Your task to perform on an android device: open app "Roku - Official Remote Control" (install if not already installed) and enter user name: "autumnal@gmail.com" and password: "stuffing" Image 0: 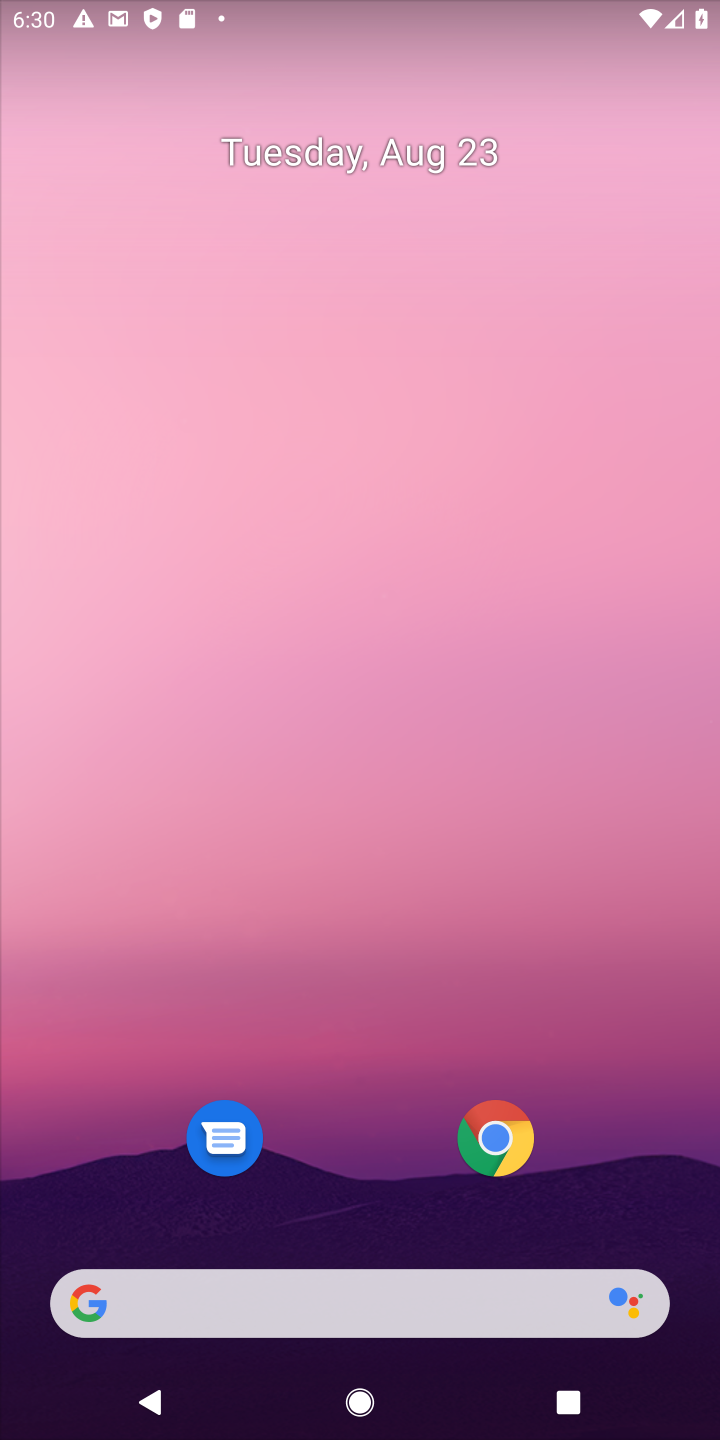
Step 0: drag from (392, 1197) to (395, 31)
Your task to perform on an android device: open app "Roku - Official Remote Control" (install if not already installed) and enter user name: "autumnal@gmail.com" and password: "stuffing" Image 1: 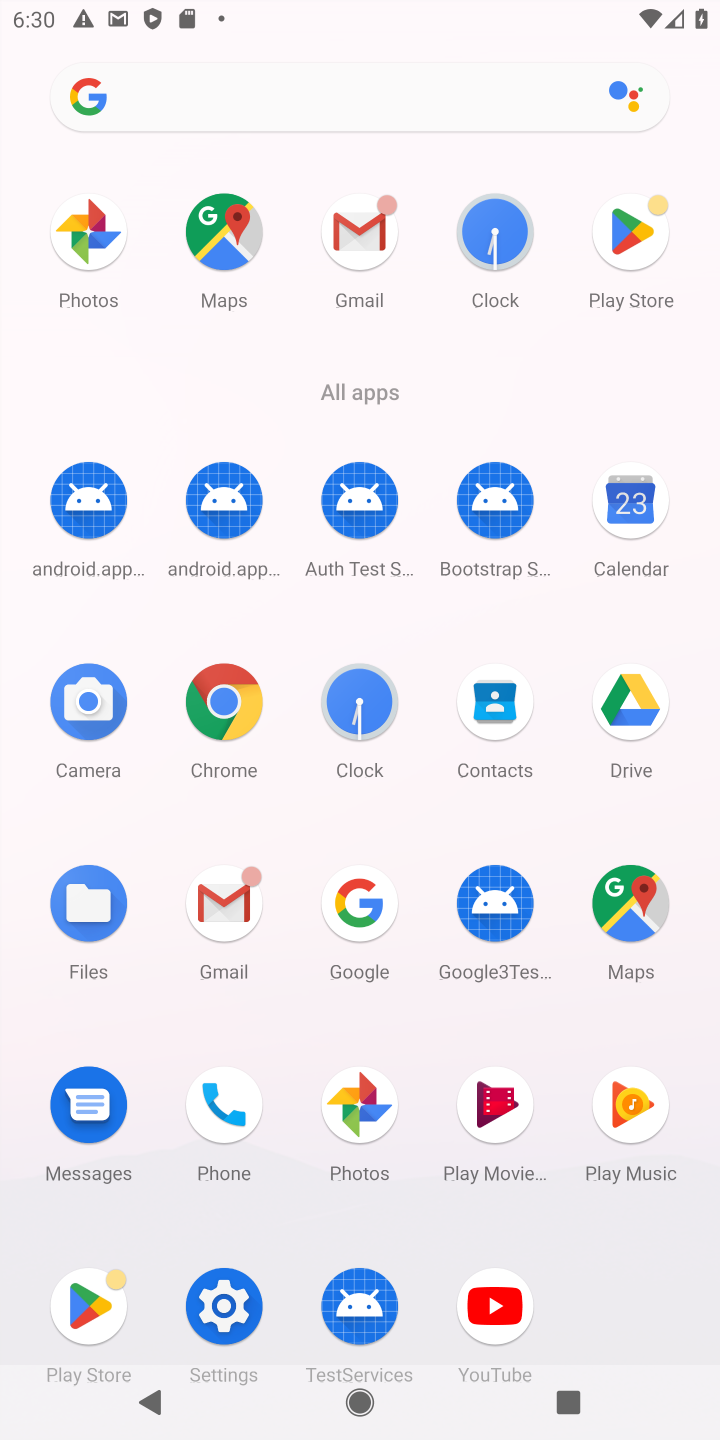
Step 1: click (617, 219)
Your task to perform on an android device: open app "Roku - Official Remote Control" (install if not already installed) and enter user name: "autumnal@gmail.com" and password: "stuffing" Image 2: 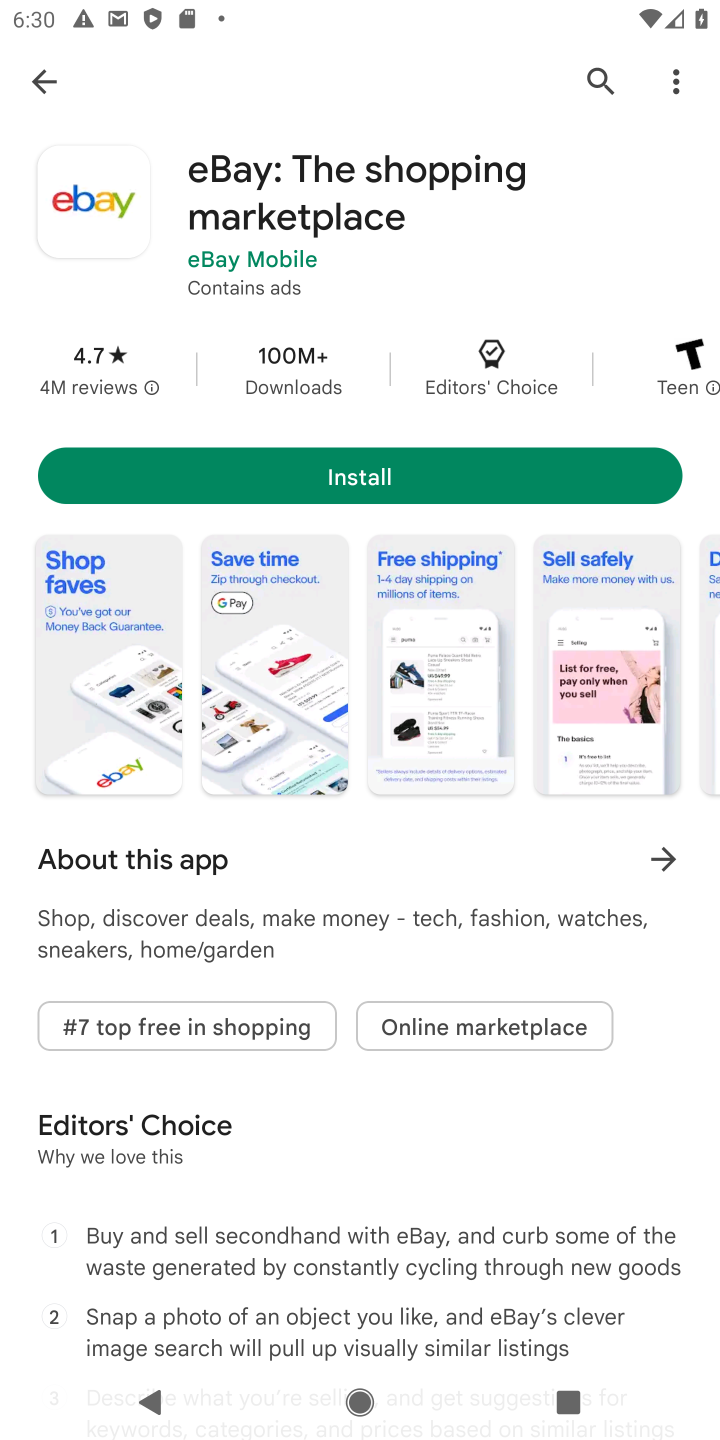
Step 2: click (47, 82)
Your task to perform on an android device: open app "Roku - Official Remote Control" (install if not already installed) and enter user name: "autumnal@gmail.com" and password: "stuffing" Image 3: 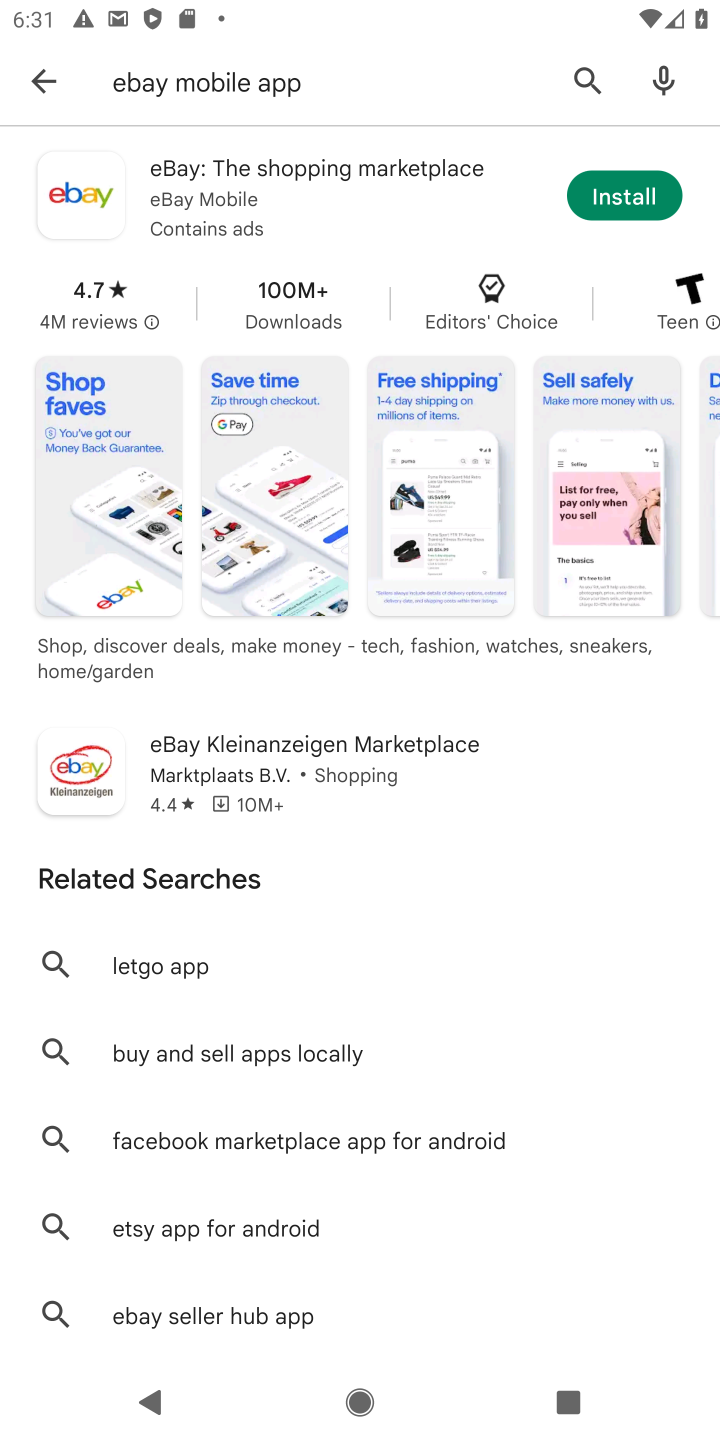
Step 3: click (595, 79)
Your task to perform on an android device: open app "Roku - Official Remote Control" (install if not already installed) and enter user name: "autumnal@gmail.com" and password: "stuffing" Image 4: 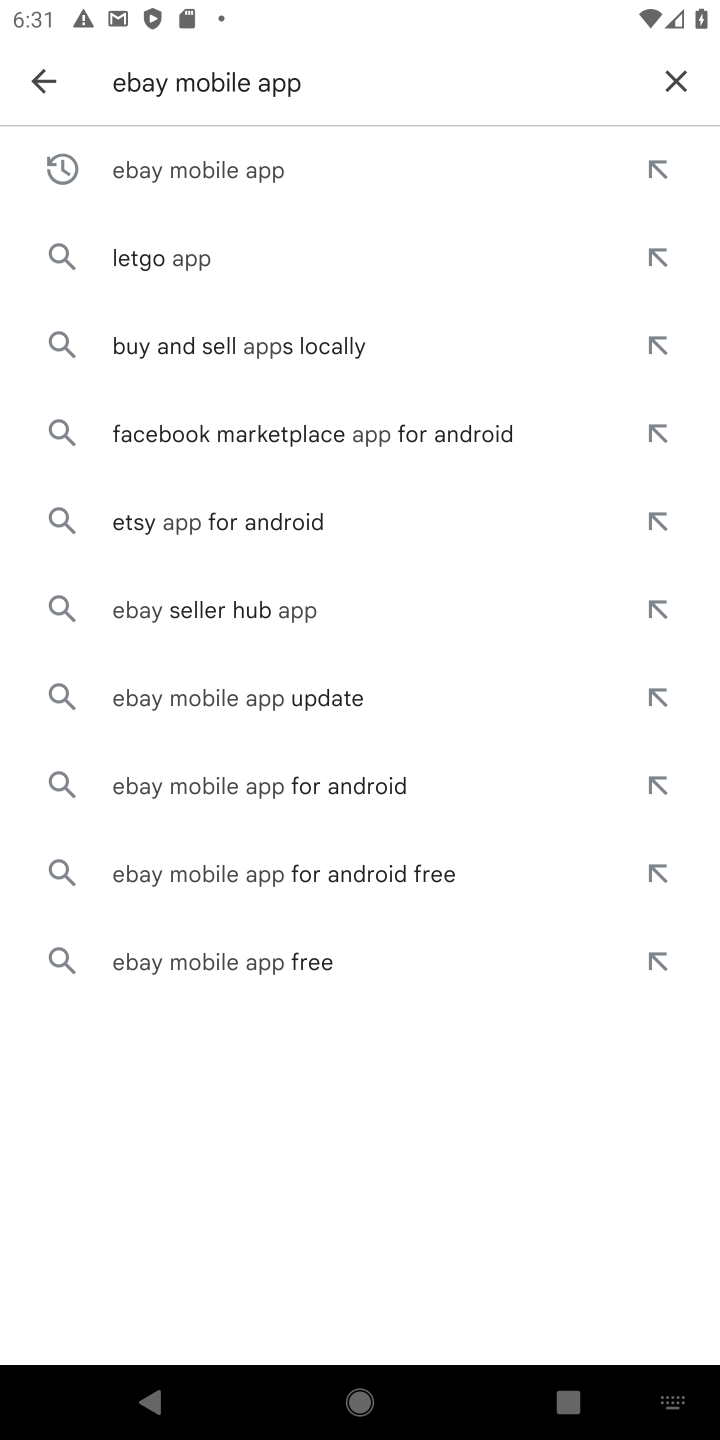
Step 4: click (18, 83)
Your task to perform on an android device: open app "Roku - Official Remote Control" (install if not already installed) and enter user name: "autumnal@gmail.com" and password: "stuffing" Image 5: 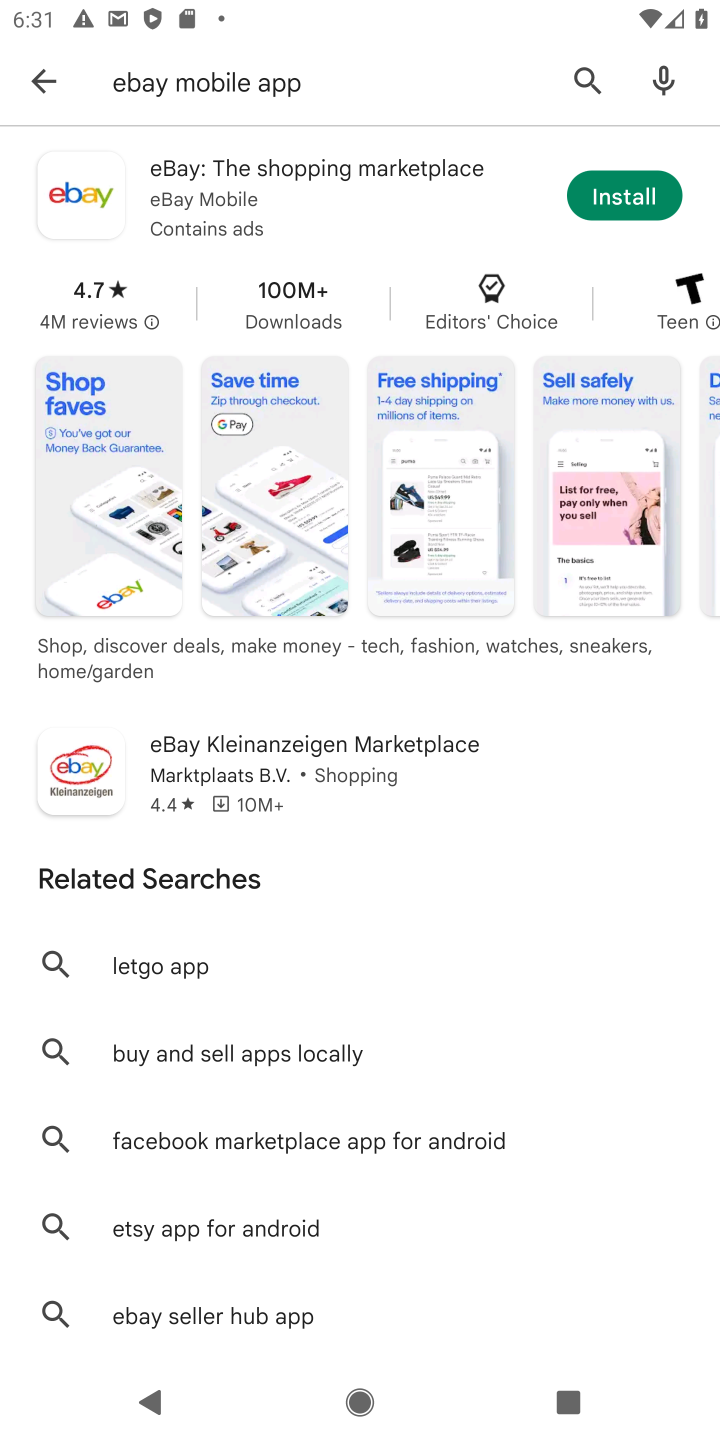
Step 5: click (83, 44)
Your task to perform on an android device: open app "Roku - Official Remote Control" (install if not already installed) and enter user name: "autumnal@gmail.com" and password: "stuffing" Image 6: 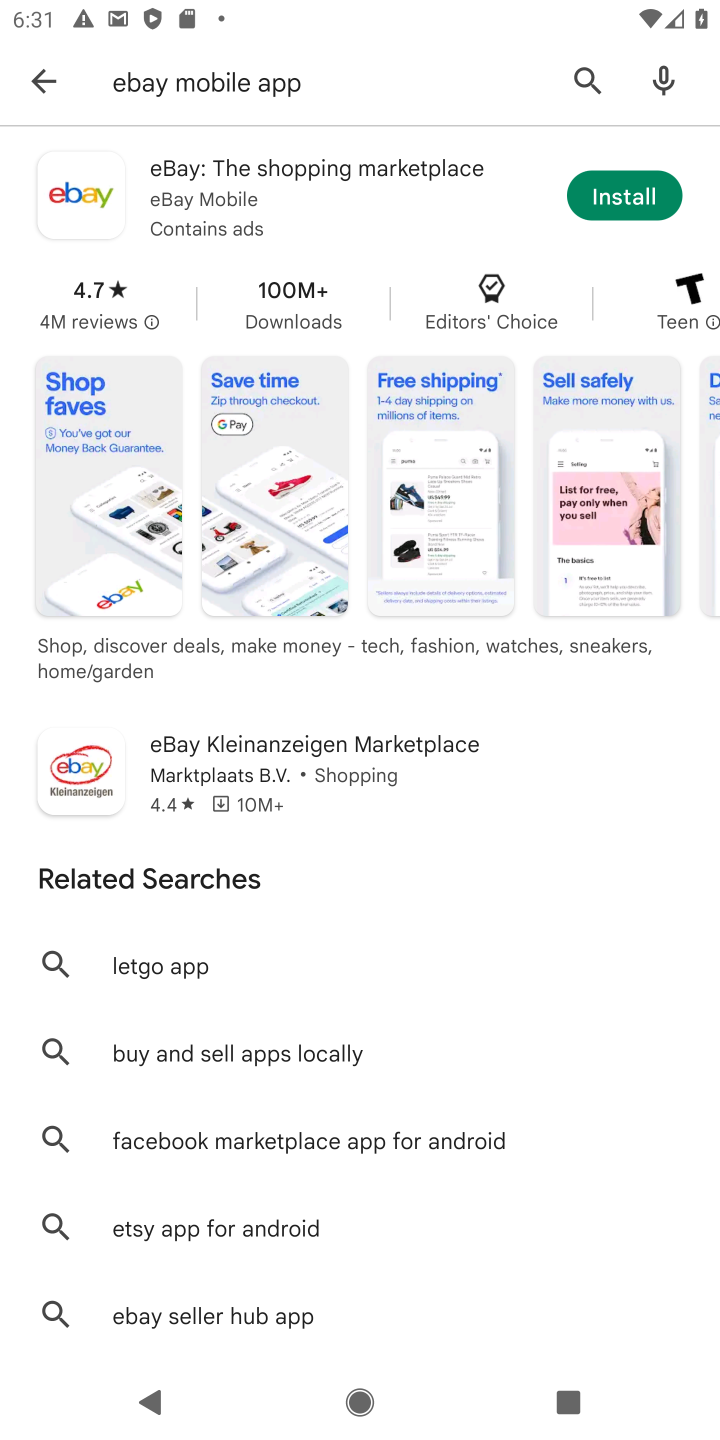
Step 6: click (64, 66)
Your task to perform on an android device: open app "Roku - Official Remote Control" (install if not already installed) and enter user name: "autumnal@gmail.com" and password: "stuffing" Image 7: 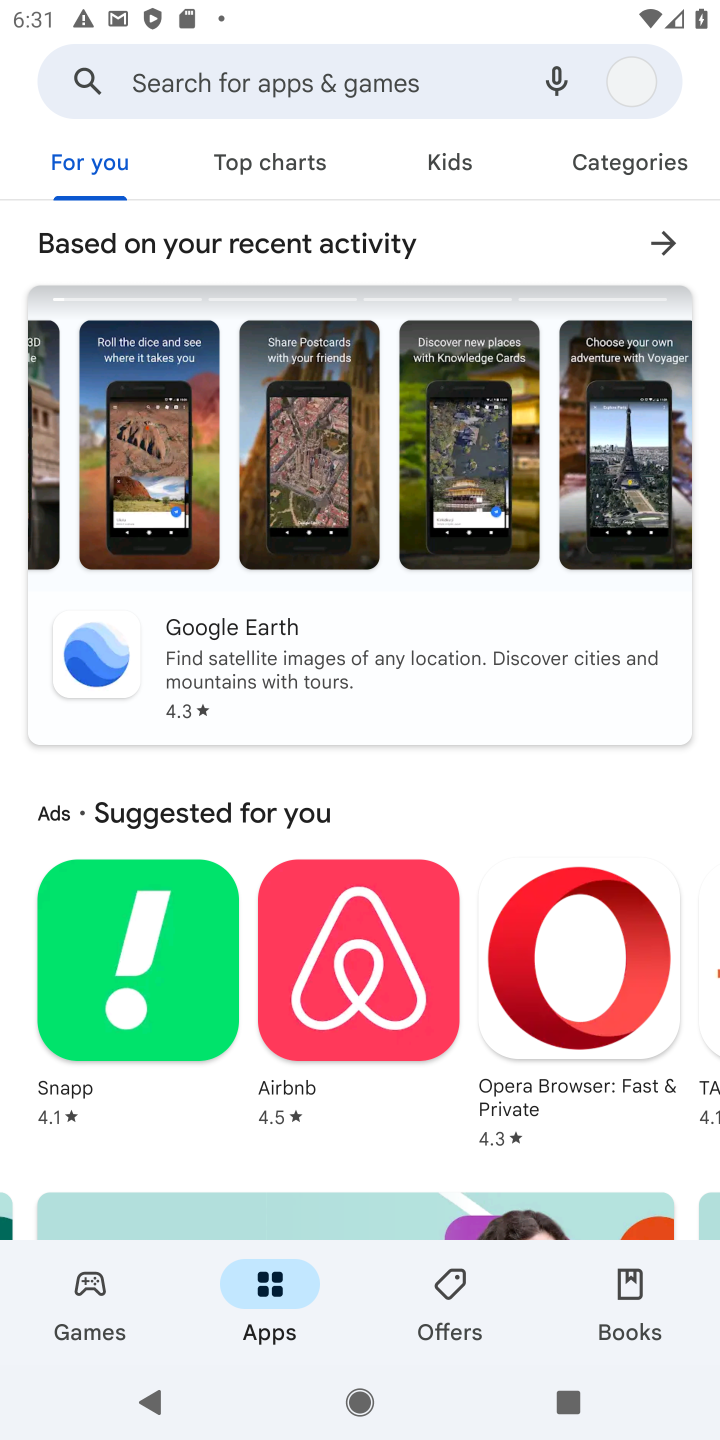
Step 7: click (248, 38)
Your task to perform on an android device: open app "Roku - Official Remote Control" (install if not already installed) and enter user name: "autumnal@gmail.com" and password: "stuffing" Image 8: 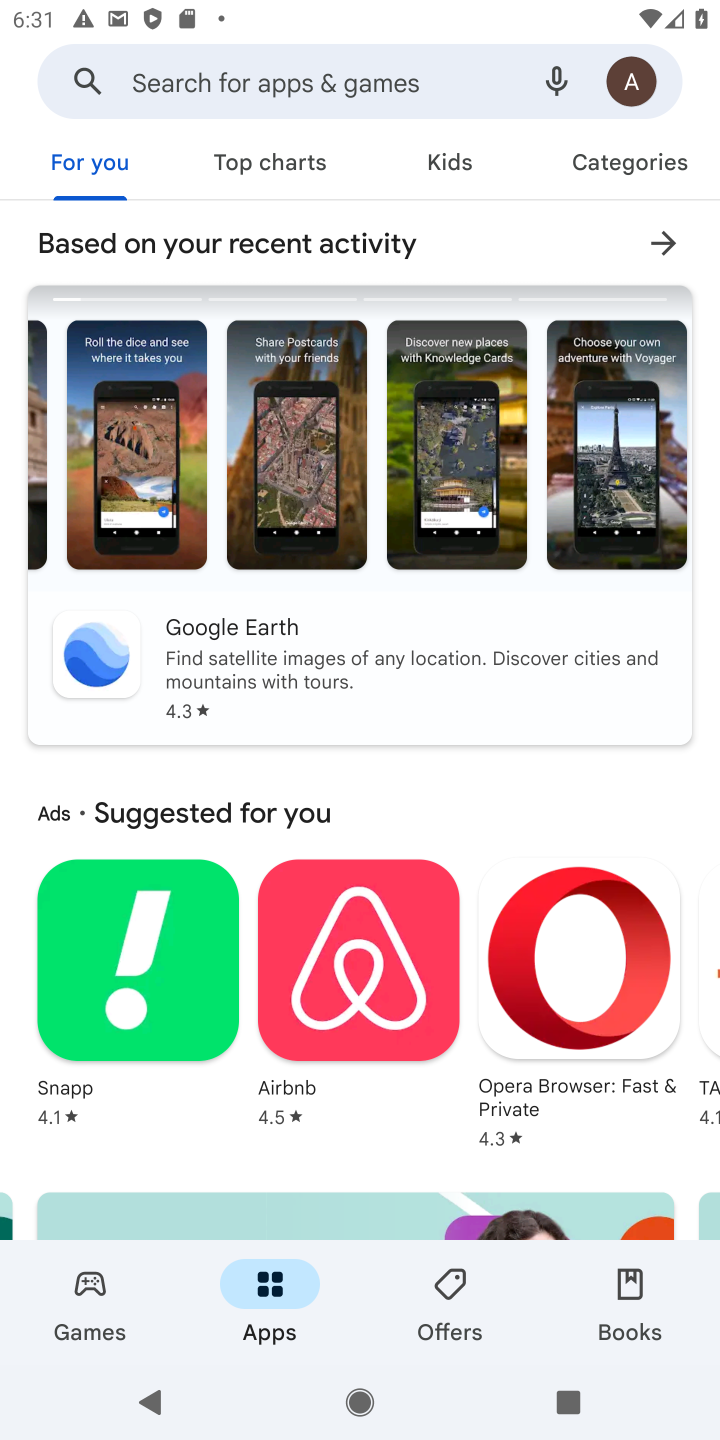
Step 8: click (266, 63)
Your task to perform on an android device: open app "Roku - Official Remote Control" (install if not already installed) and enter user name: "autumnal@gmail.com" and password: "stuffing" Image 9: 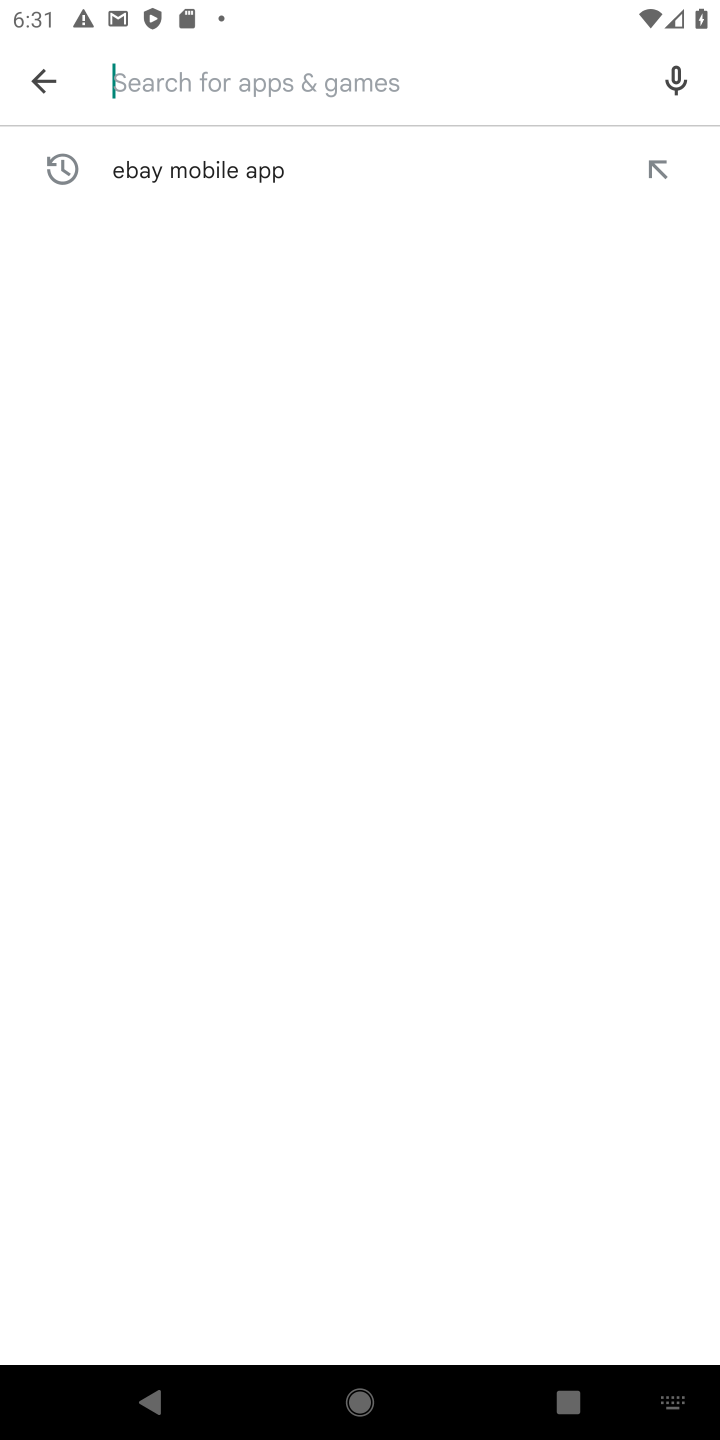
Step 9: type "Roku  "
Your task to perform on an android device: open app "Roku - Official Remote Control" (install if not already installed) and enter user name: "autumnal@gmail.com" and password: "stuffing" Image 10: 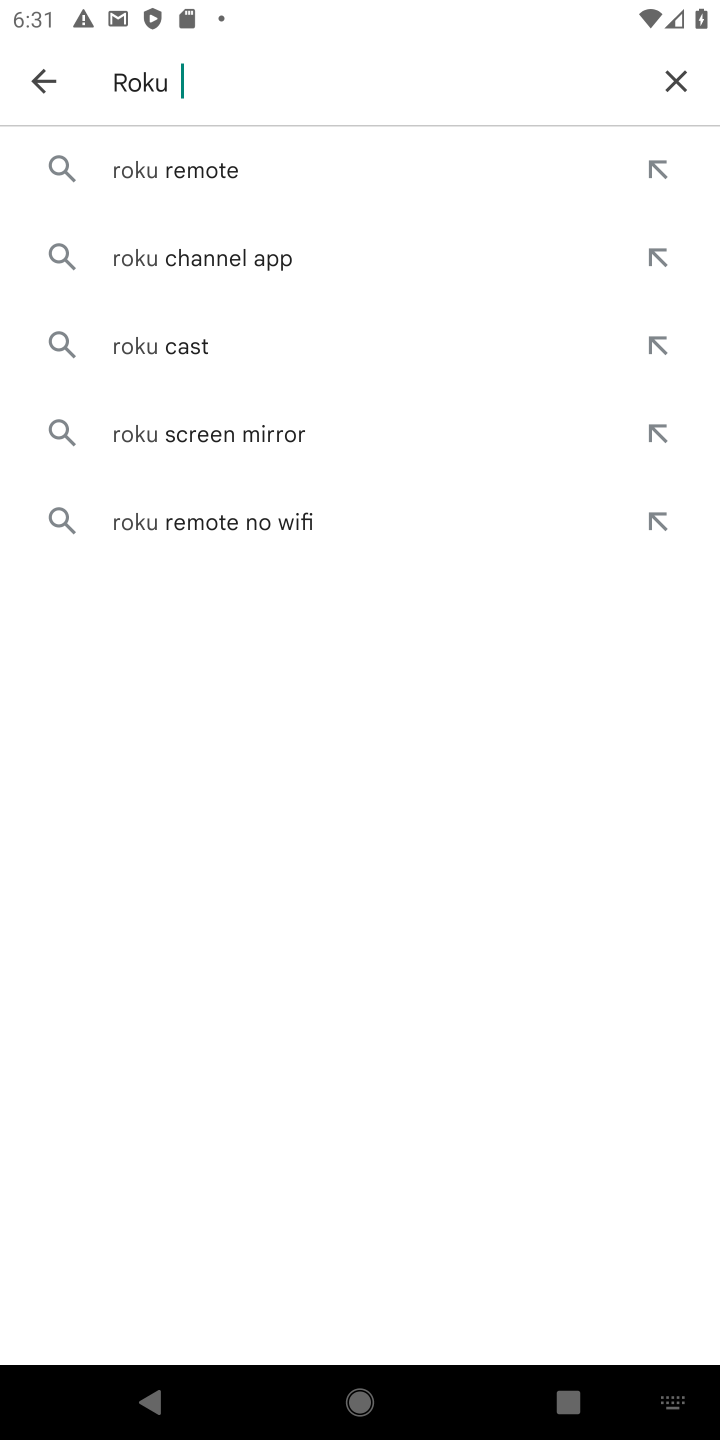
Step 10: click (242, 177)
Your task to perform on an android device: open app "Roku - Official Remote Control" (install if not already installed) and enter user name: "autumnal@gmail.com" and password: "stuffing" Image 11: 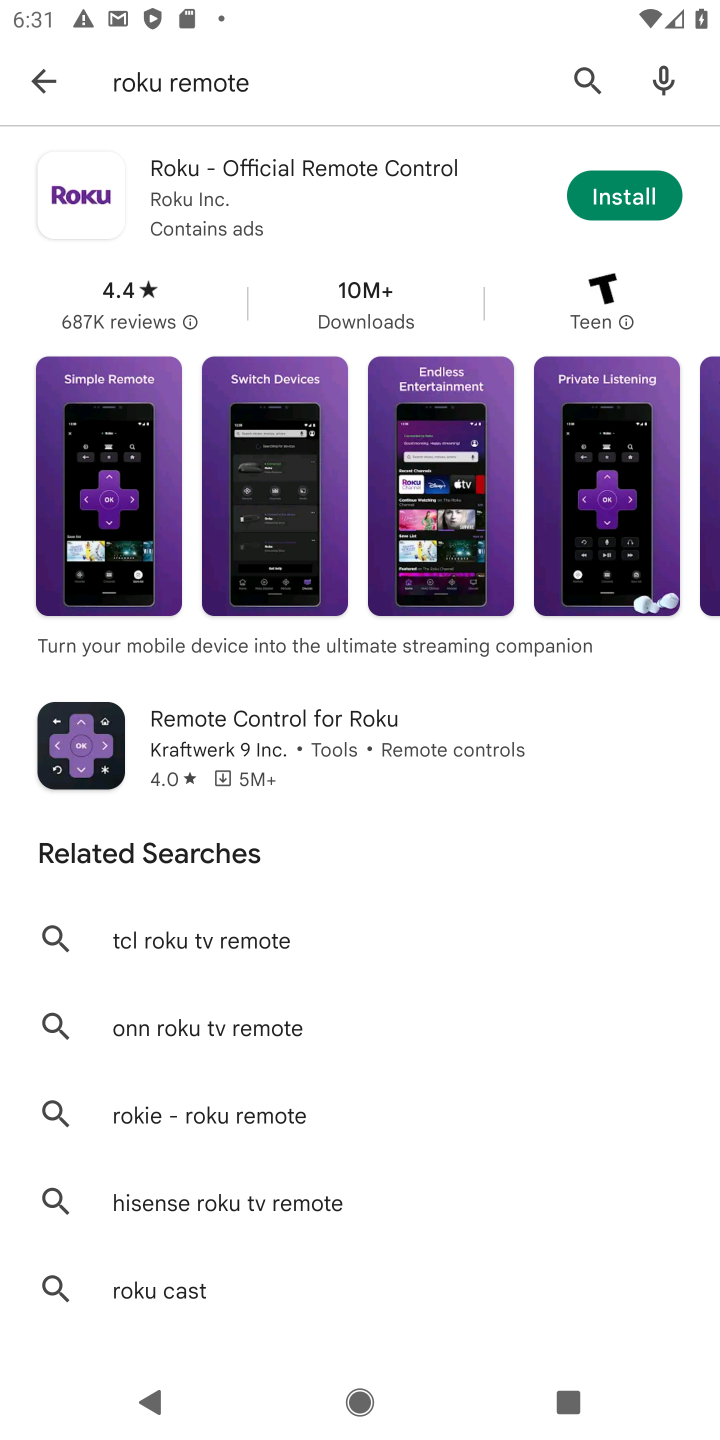
Step 11: click (635, 179)
Your task to perform on an android device: open app "Roku - Official Remote Control" (install if not already installed) and enter user name: "autumnal@gmail.com" and password: "stuffing" Image 12: 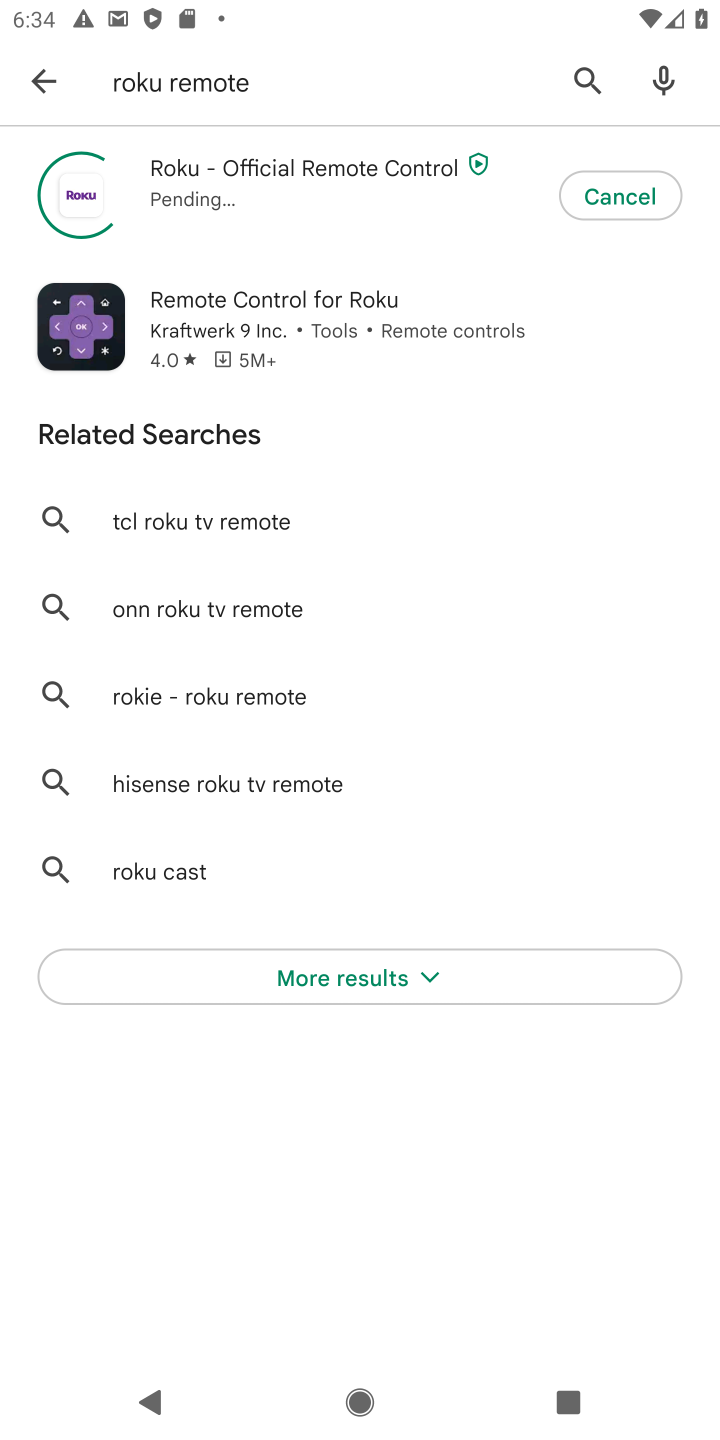
Step 12: task complete